Your task to perform on an android device: Clear the cart on target.com. Add jbl charge 4 to the cart on target.com, then select checkout. Image 0: 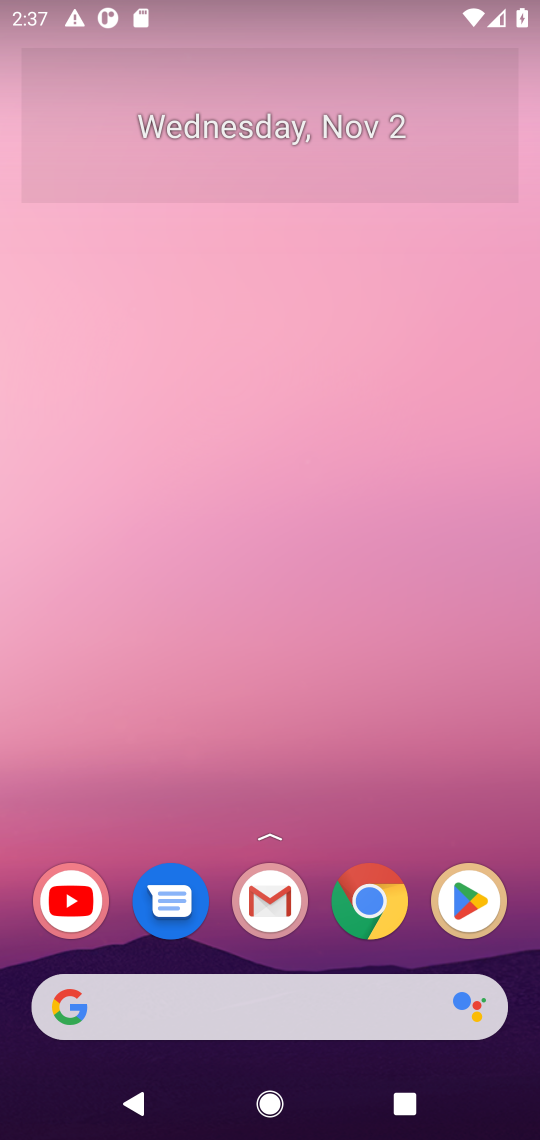
Step 0: press home button
Your task to perform on an android device: Clear the cart on target.com. Add jbl charge 4 to the cart on target.com, then select checkout. Image 1: 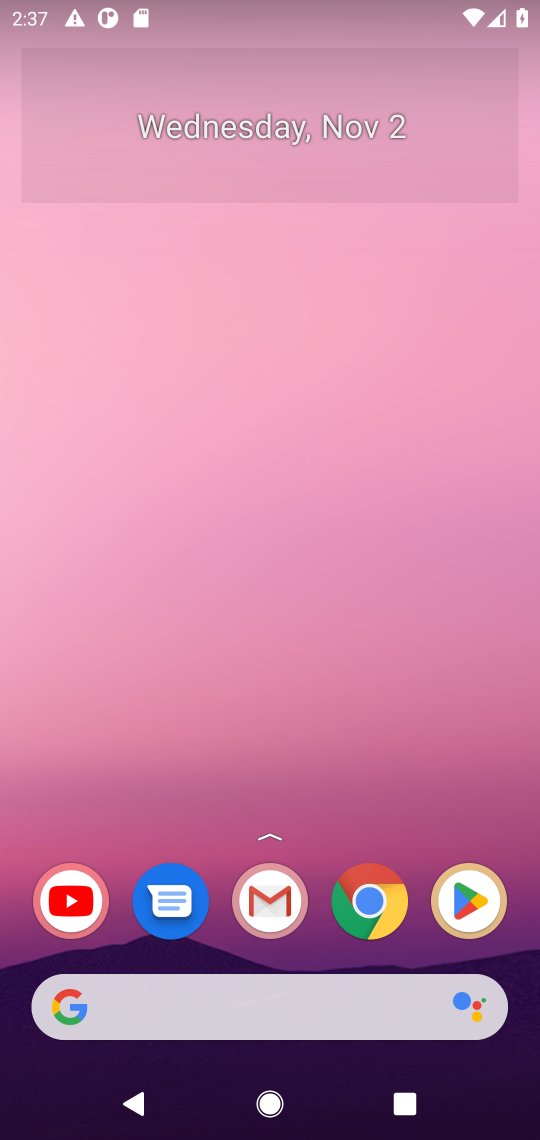
Step 1: drag from (303, 842) to (337, 24)
Your task to perform on an android device: Clear the cart on target.com. Add jbl charge 4 to the cart on target.com, then select checkout. Image 2: 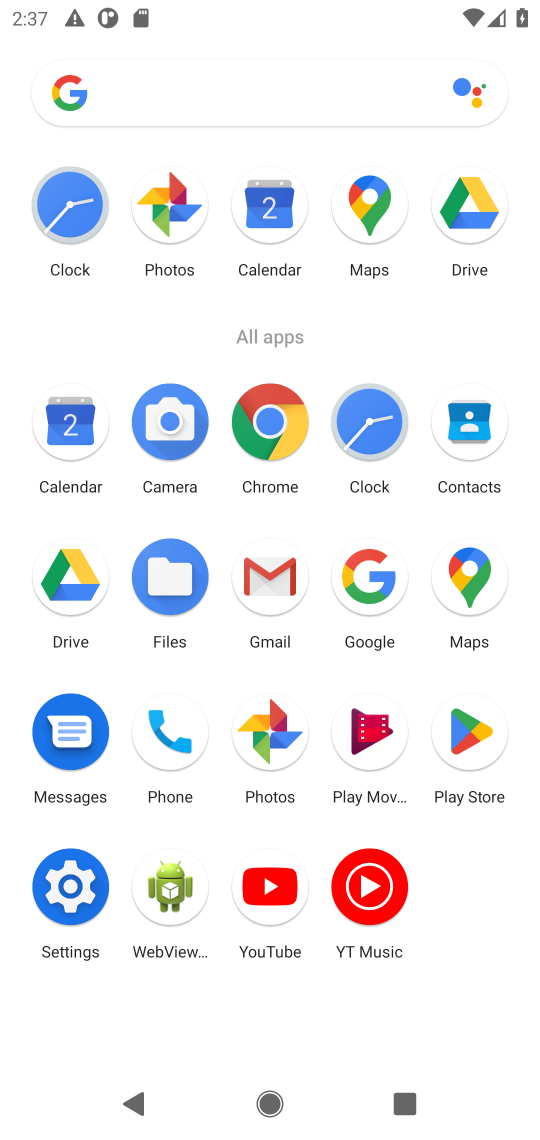
Step 2: click (268, 414)
Your task to perform on an android device: Clear the cart on target.com. Add jbl charge 4 to the cart on target.com, then select checkout. Image 3: 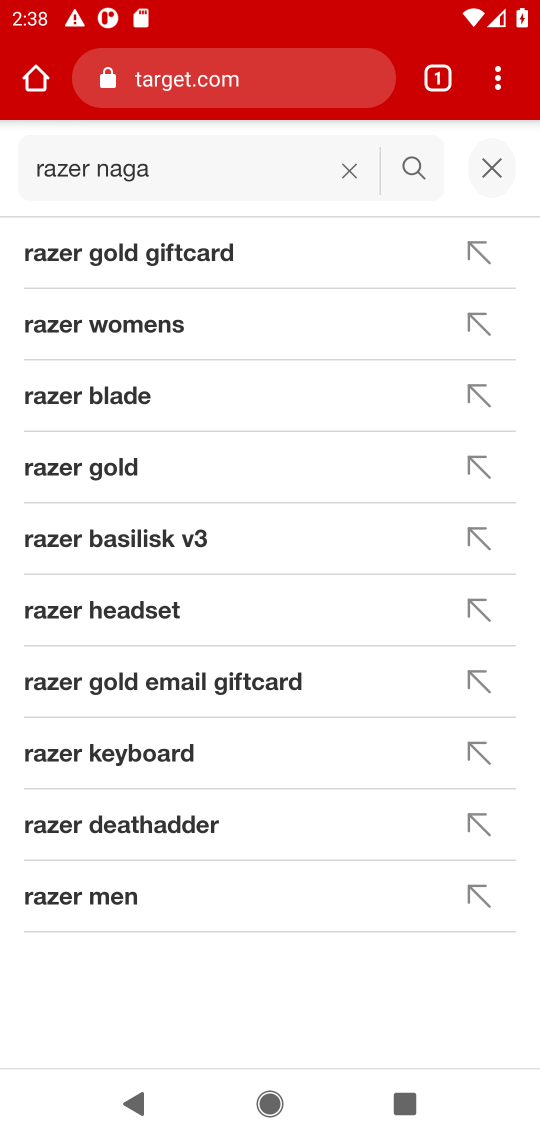
Step 3: click (351, 174)
Your task to perform on an android device: Clear the cart on target.com. Add jbl charge 4 to the cart on target.com, then select checkout. Image 4: 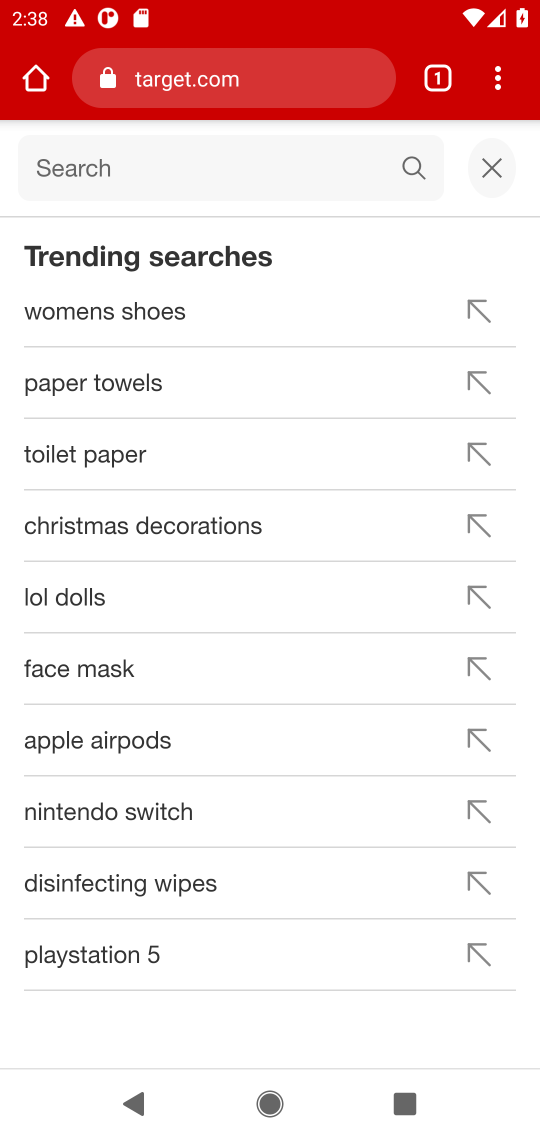
Step 4: click (115, 158)
Your task to perform on an android device: Clear the cart on target.com. Add jbl charge 4 to the cart on target.com, then select checkout. Image 5: 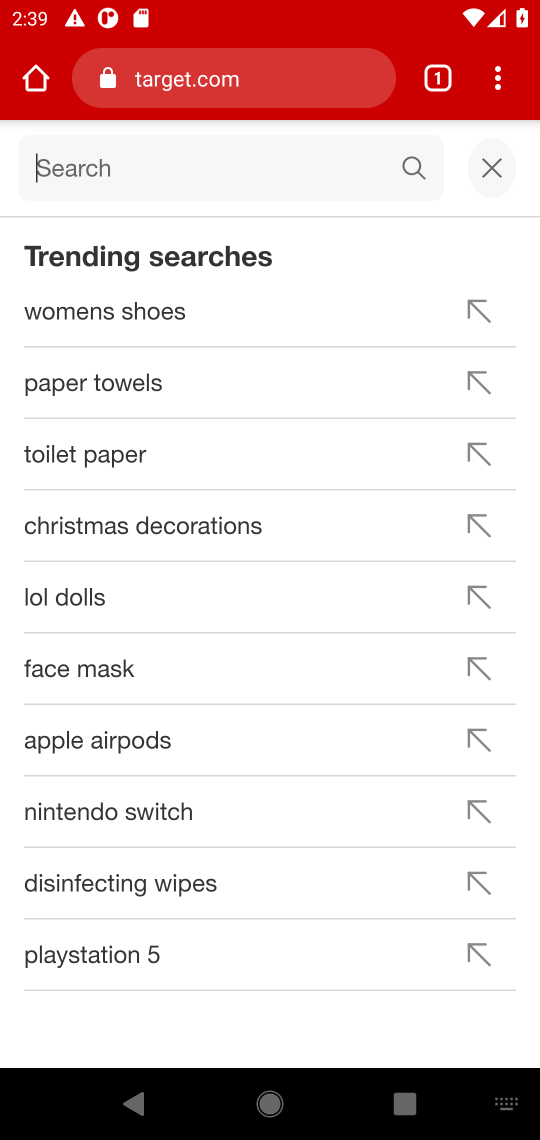
Step 5: type "jbl charge 4"
Your task to perform on an android device: Clear the cart on target.com. Add jbl charge 4 to the cart on target.com, then select checkout. Image 6: 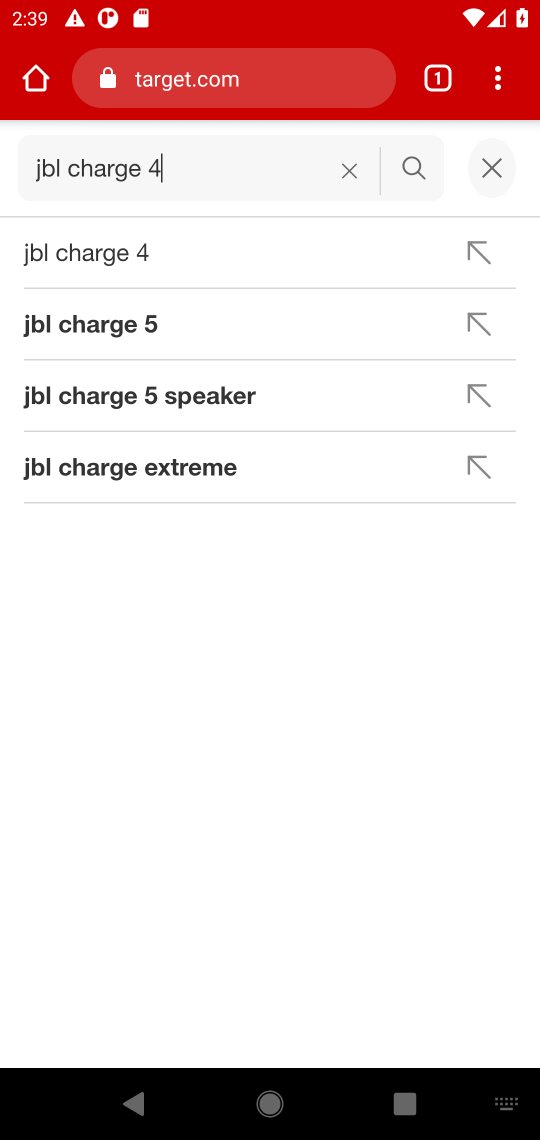
Step 6: click (148, 256)
Your task to perform on an android device: Clear the cart on target.com. Add jbl charge 4 to the cart on target.com, then select checkout. Image 7: 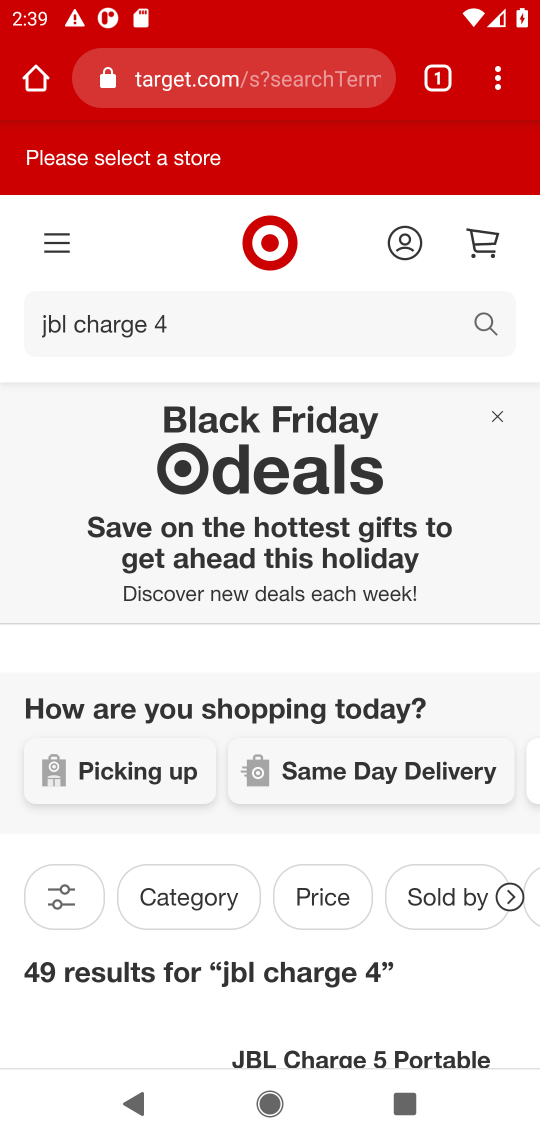
Step 7: drag from (299, 815) to (292, 352)
Your task to perform on an android device: Clear the cart on target.com. Add jbl charge 4 to the cart on target.com, then select checkout. Image 8: 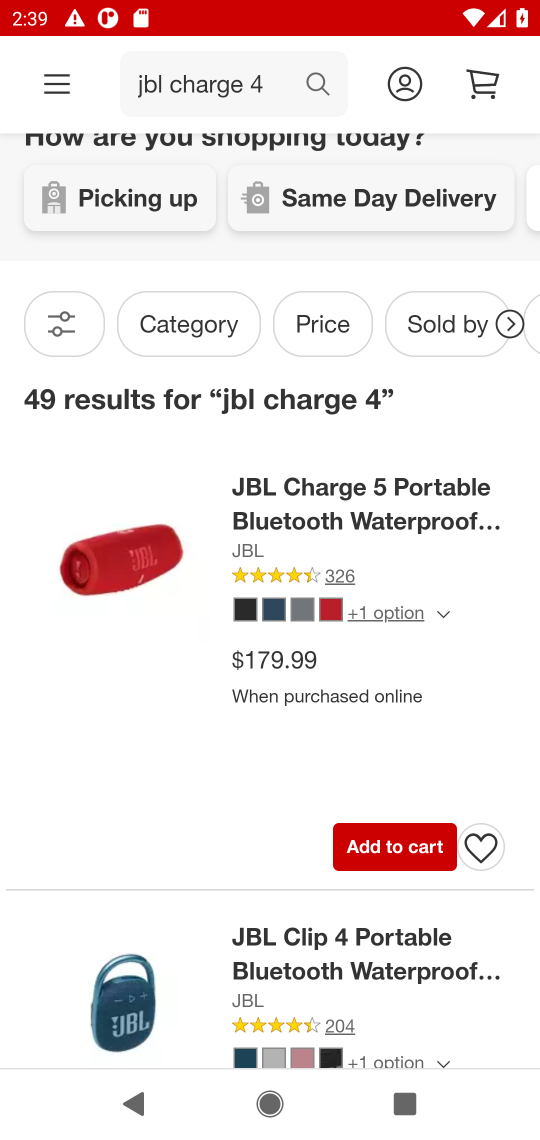
Step 8: click (294, 965)
Your task to perform on an android device: Clear the cart on target.com. Add jbl charge 4 to the cart on target.com, then select checkout. Image 9: 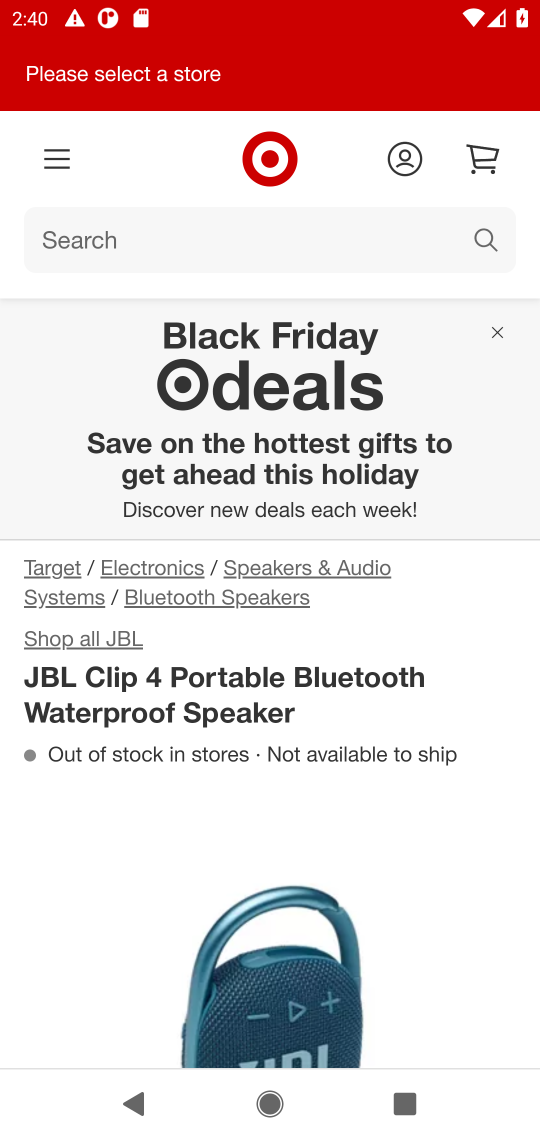
Step 9: drag from (168, 965) to (247, 124)
Your task to perform on an android device: Clear the cart on target.com. Add jbl charge 4 to the cart on target.com, then select checkout. Image 10: 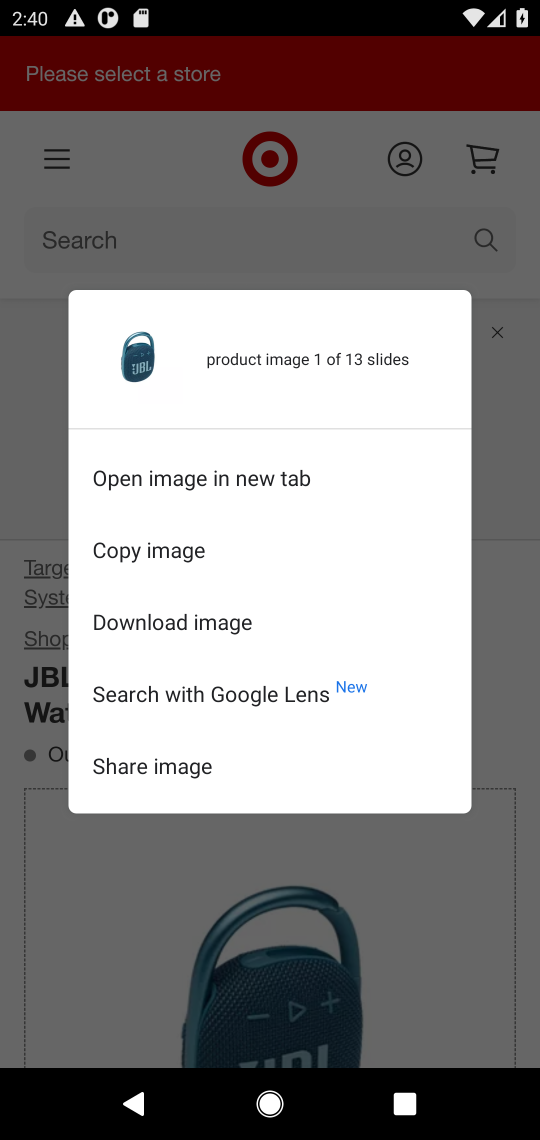
Step 10: click (38, 814)
Your task to perform on an android device: Clear the cart on target.com. Add jbl charge 4 to the cart on target.com, then select checkout. Image 11: 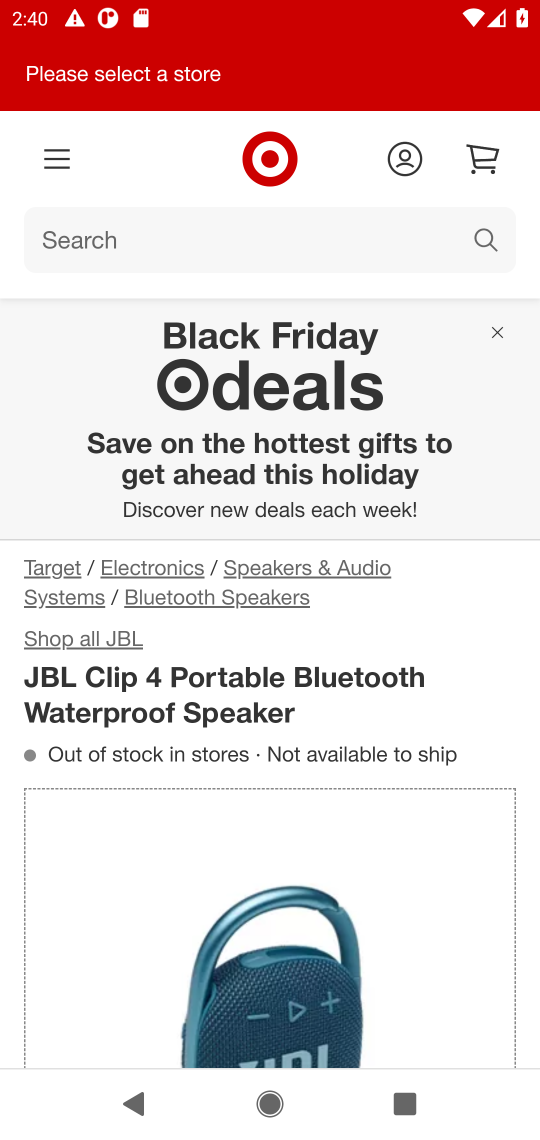
Step 11: drag from (135, 939) to (201, 357)
Your task to perform on an android device: Clear the cart on target.com. Add jbl charge 4 to the cart on target.com, then select checkout. Image 12: 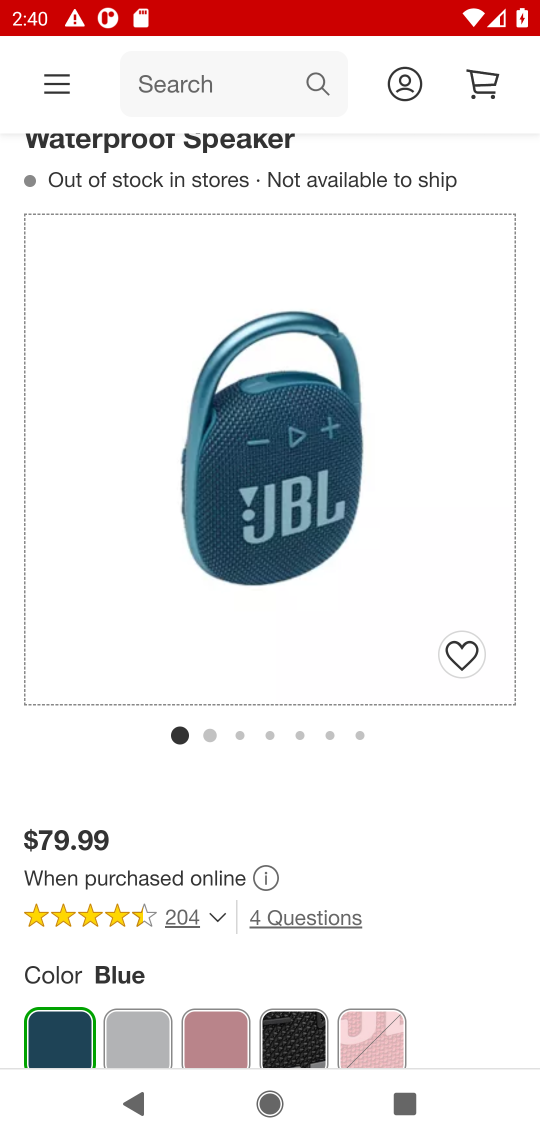
Step 12: drag from (171, 876) to (234, 251)
Your task to perform on an android device: Clear the cart on target.com. Add jbl charge 4 to the cart on target.com, then select checkout. Image 13: 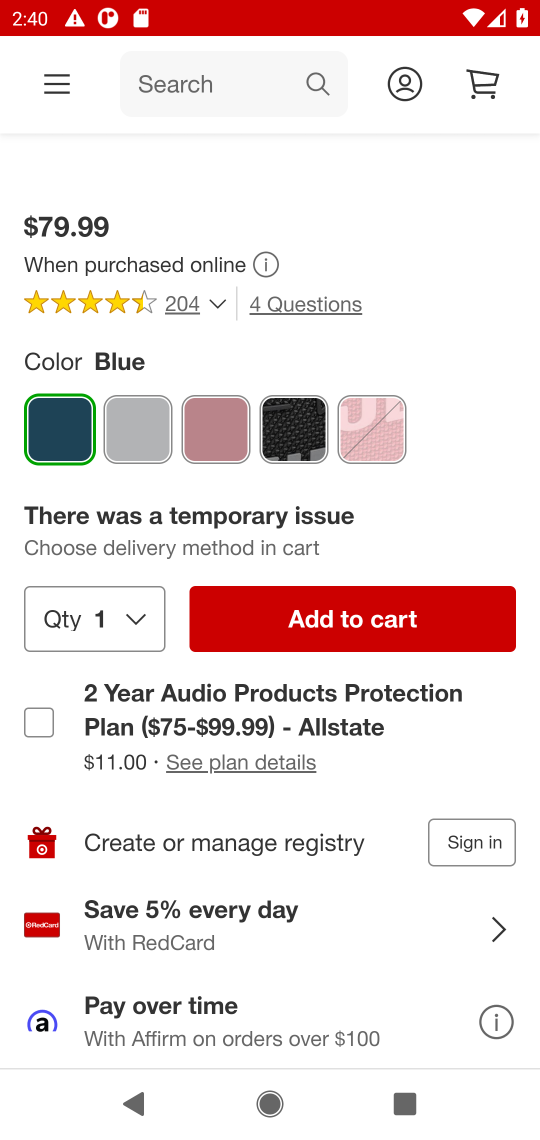
Step 13: click (369, 619)
Your task to perform on an android device: Clear the cart on target.com. Add jbl charge 4 to the cart on target.com, then select checkout. Image 14: 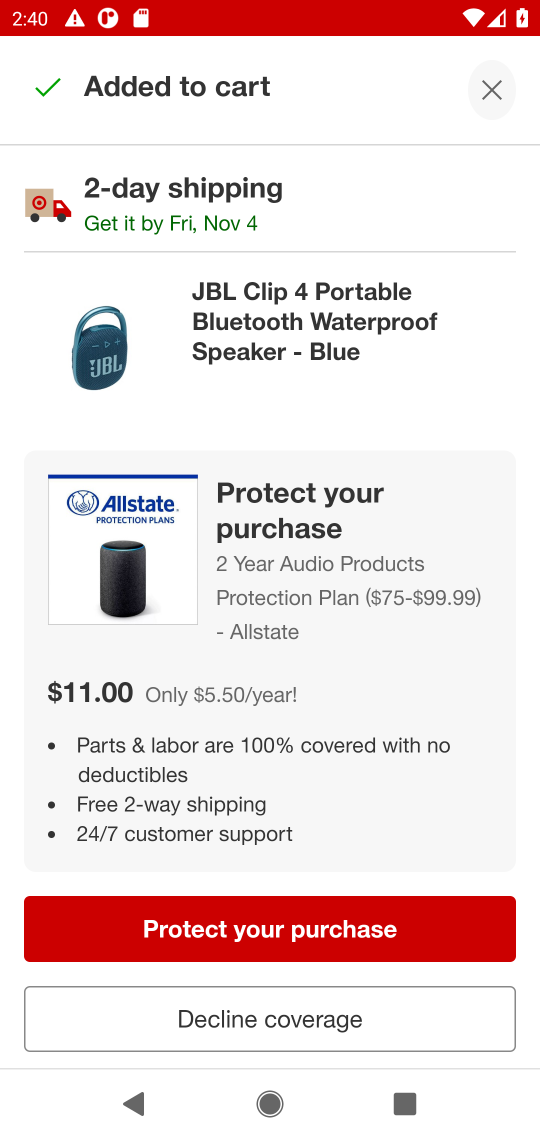
Step 14: click (492, 84)
Your task to perform on an android device: Clear the cart on target.com. Add jbl charge 4 to the cart on target.com, then select checkout. Image 15: 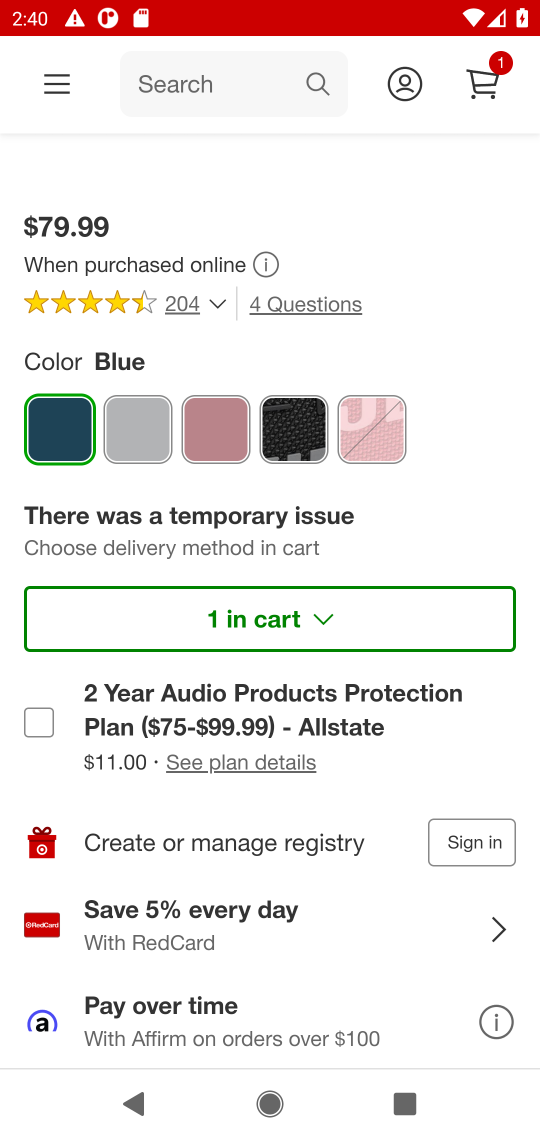
Step 15: click (493, 72)
Your task to perform on an android device: Clear the cart on target.com. Add jbl charge 4 to the cart on target.com, then select checkout. Image 16: 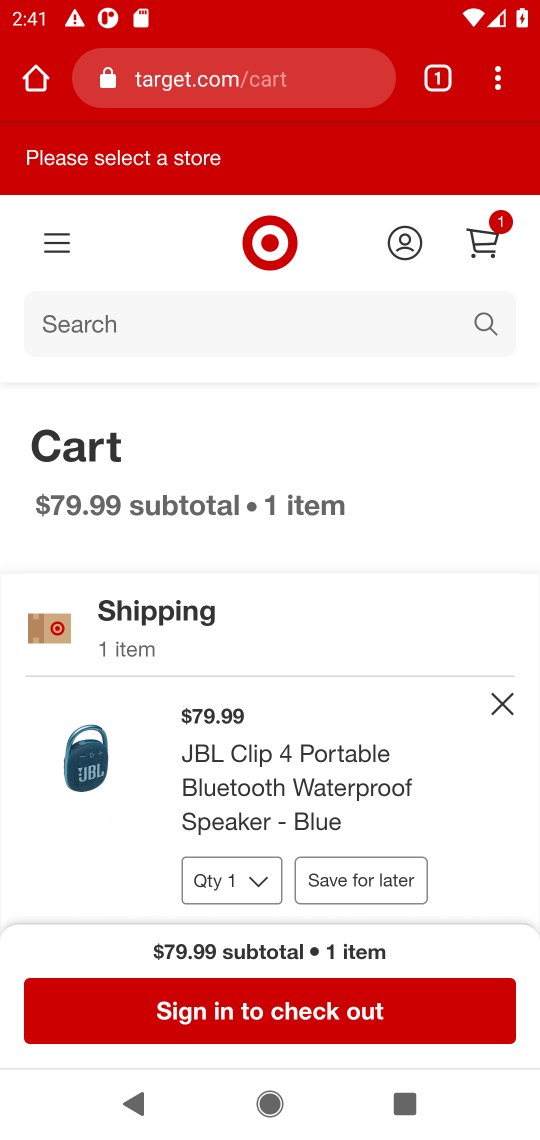
Step 16: drag from (352, 803) to (374, 491)
Your task to perform on an android device: Clear the cart on target.com. Add jbl charge 4 to the cart on target.com, then select checkout. Image 17: 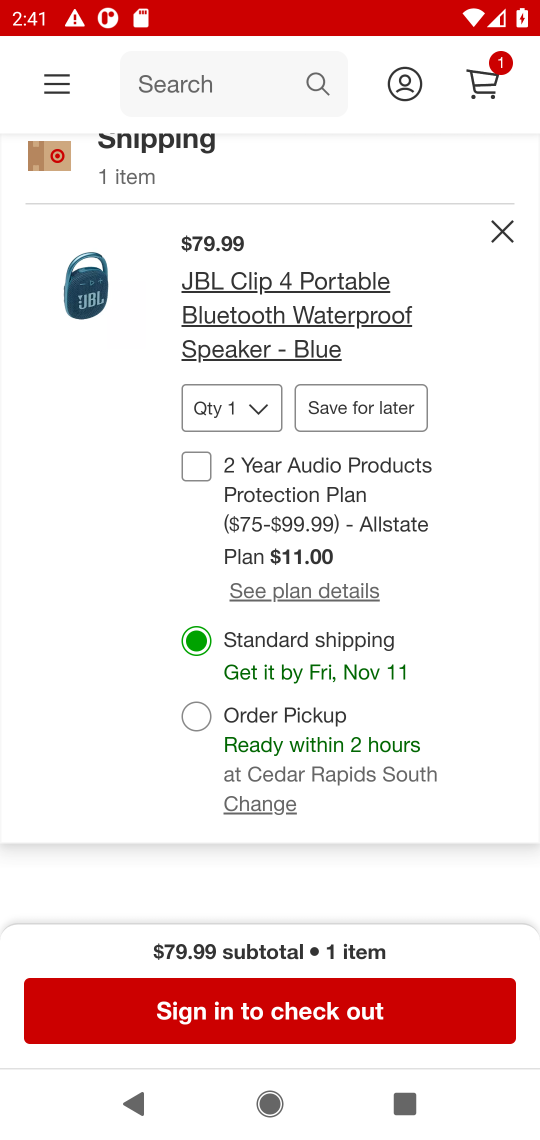
Step 17: click (245, 1015)
Your task to perform on an android device: Clear the cart on target.com. Add jbl charge 4 to the cart on target.com, then select checkout. Image 18: 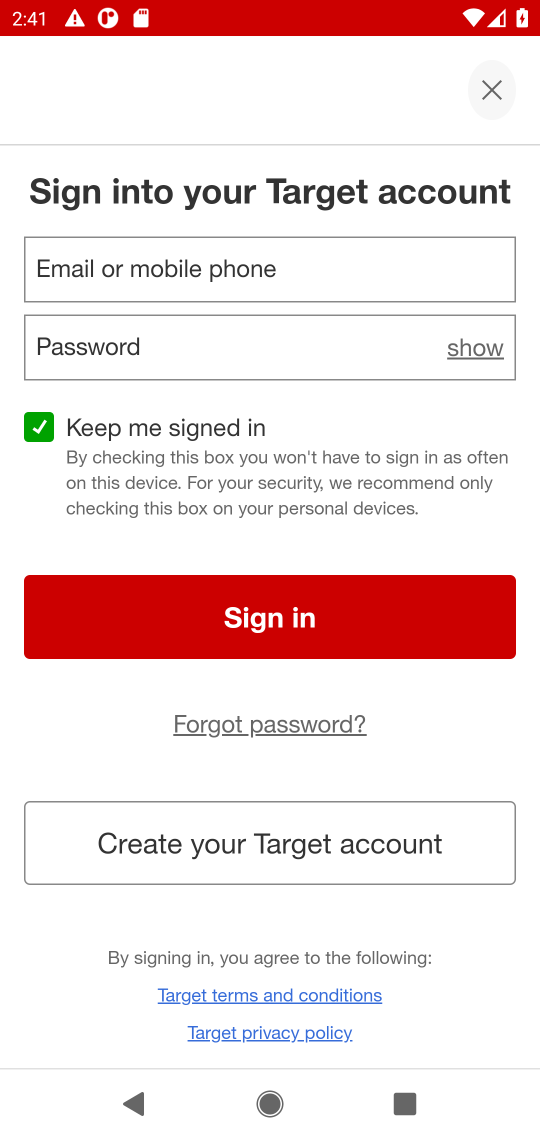
Step 18: task complete